Your task to perform on an android device: Search for "asus zenbook" on newegg, select the first entry, add it to the cart, then select checkout. Image 0: 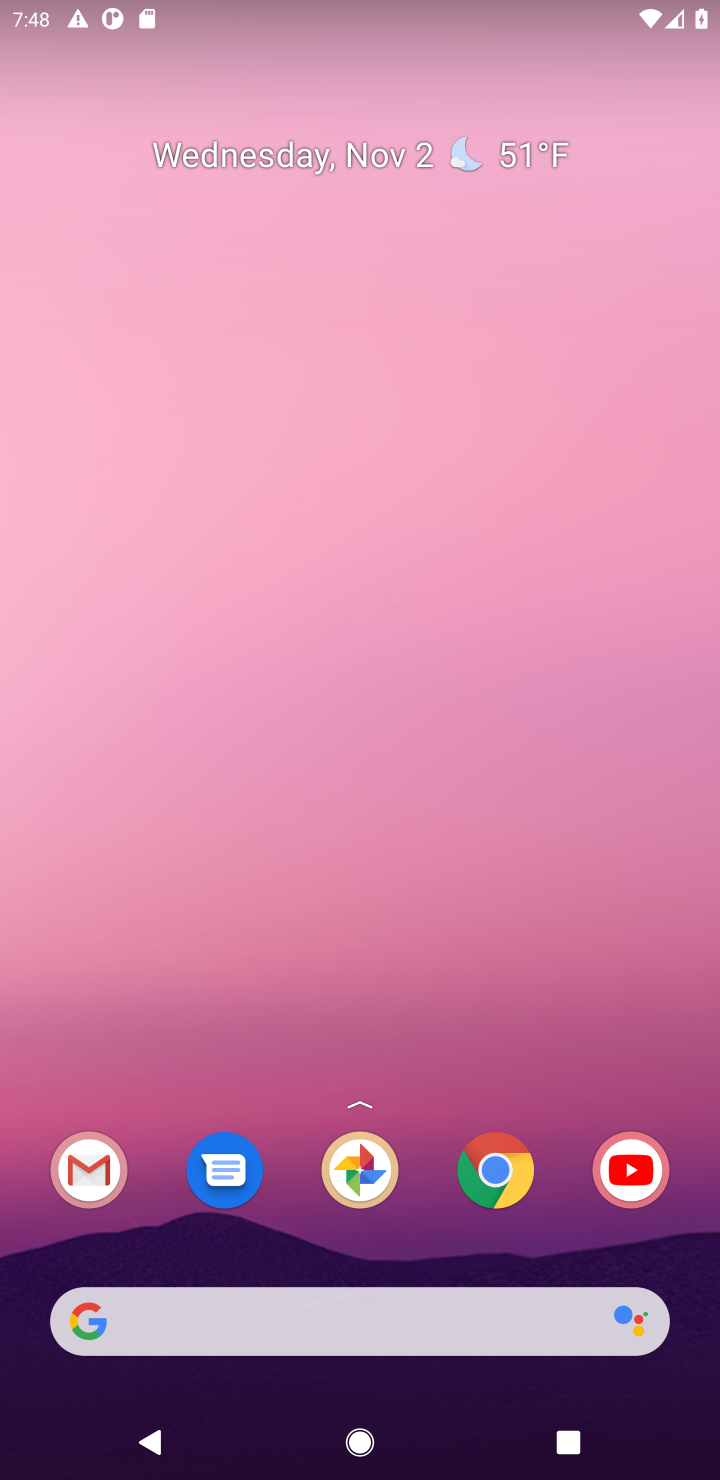
Step 0: click (517, 1166)
Your task to perform on an android device: Search for "asus zenbook" on newegg, select the first entry, add it to the cart, then select checkout. Image 1: 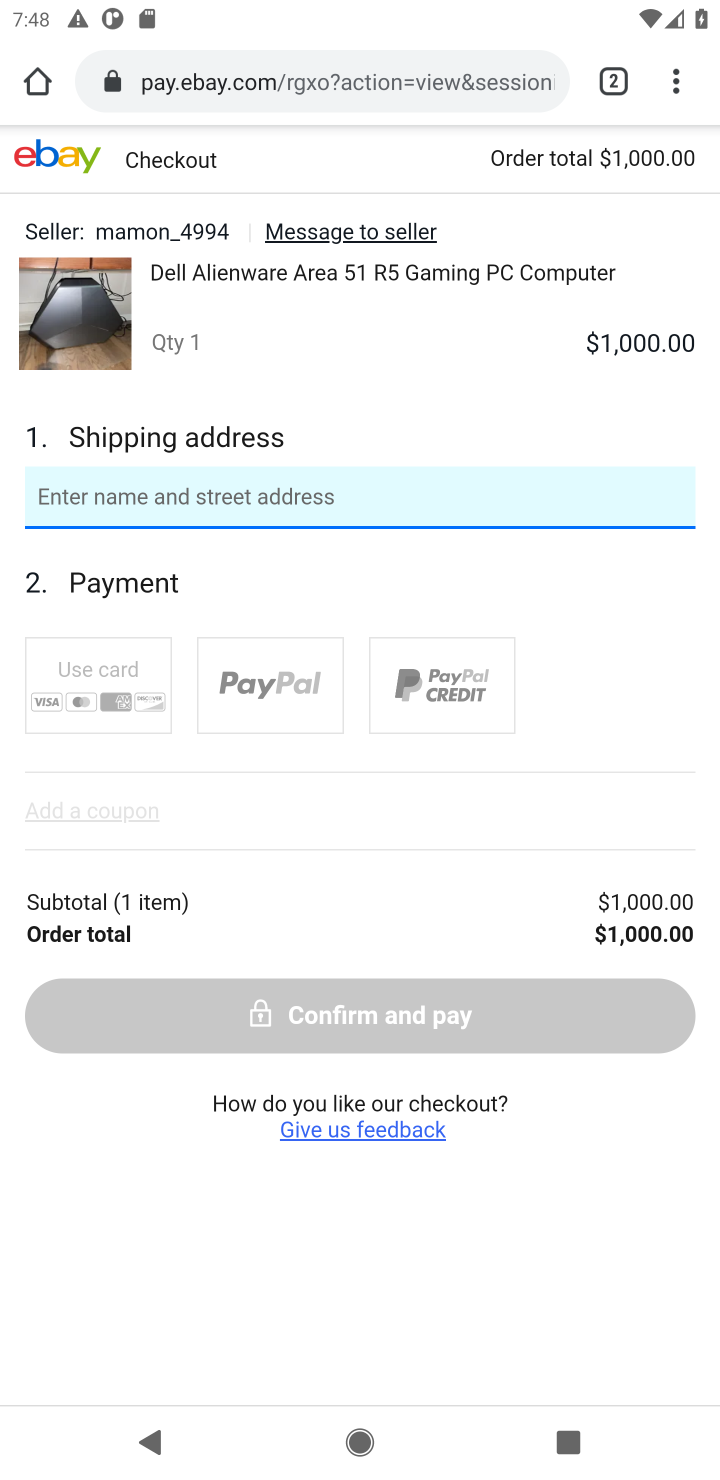
Step 1: click (432, 77)
Your task to perform on an android device: Search for "asus zenbook" on newegg, select the first entry, add it to the cart, then select checkout. Image 2: 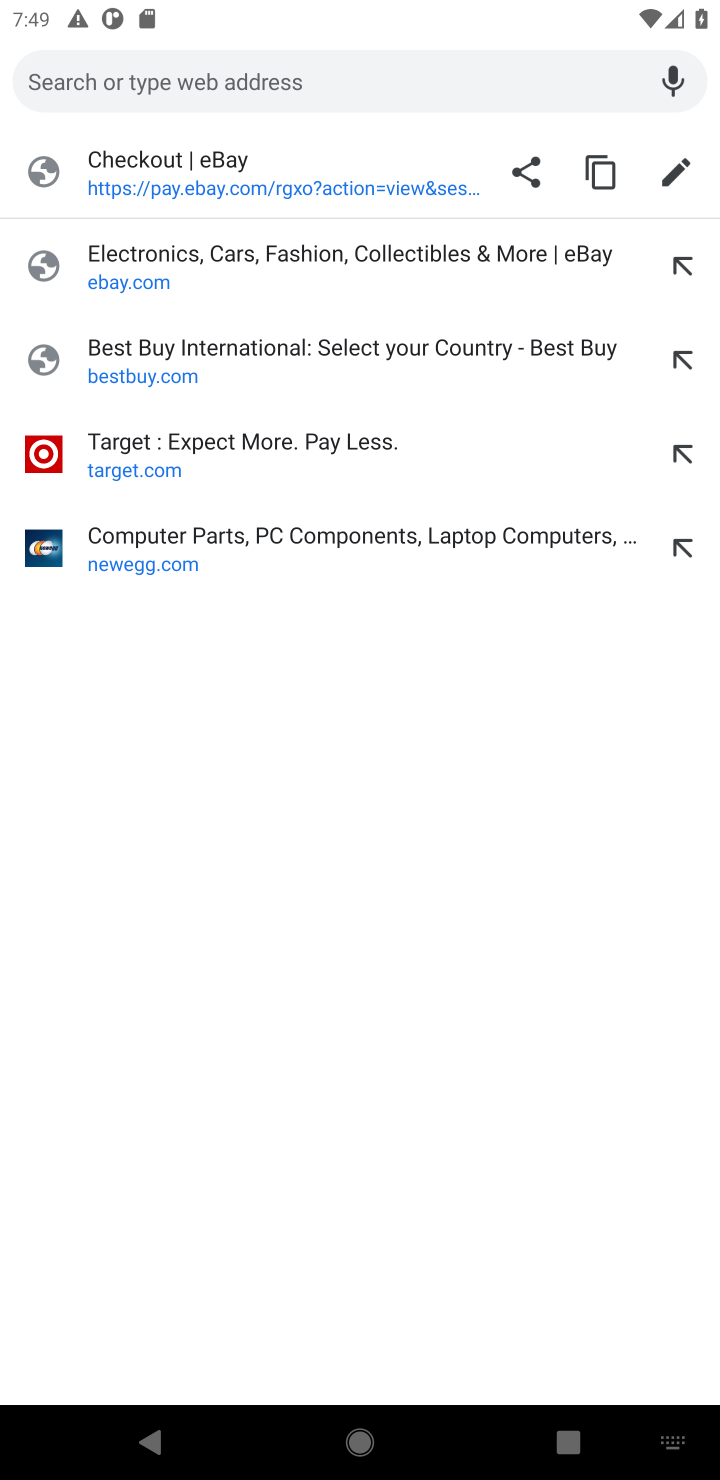
Step 2: type "newegg"
Your task to perform on an android device: Search for "asus zenbook" on newegg, select the first entry, add it to the cart, then select checkout. Image 3: 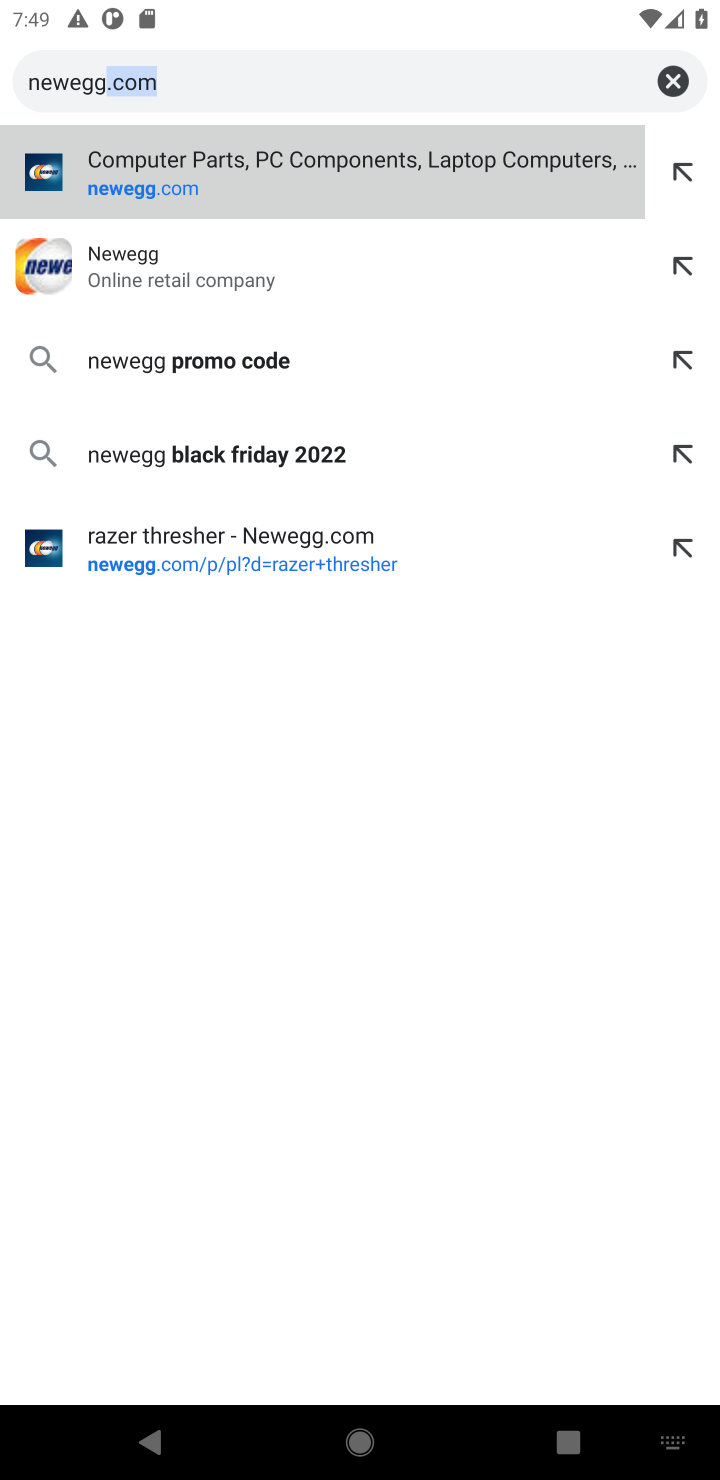
Step 3: press enter
Your task to perform on an android device: Search for "asus zenbook" on newegg, select the first entry, add it to the cart, then select checkout. Image 4: 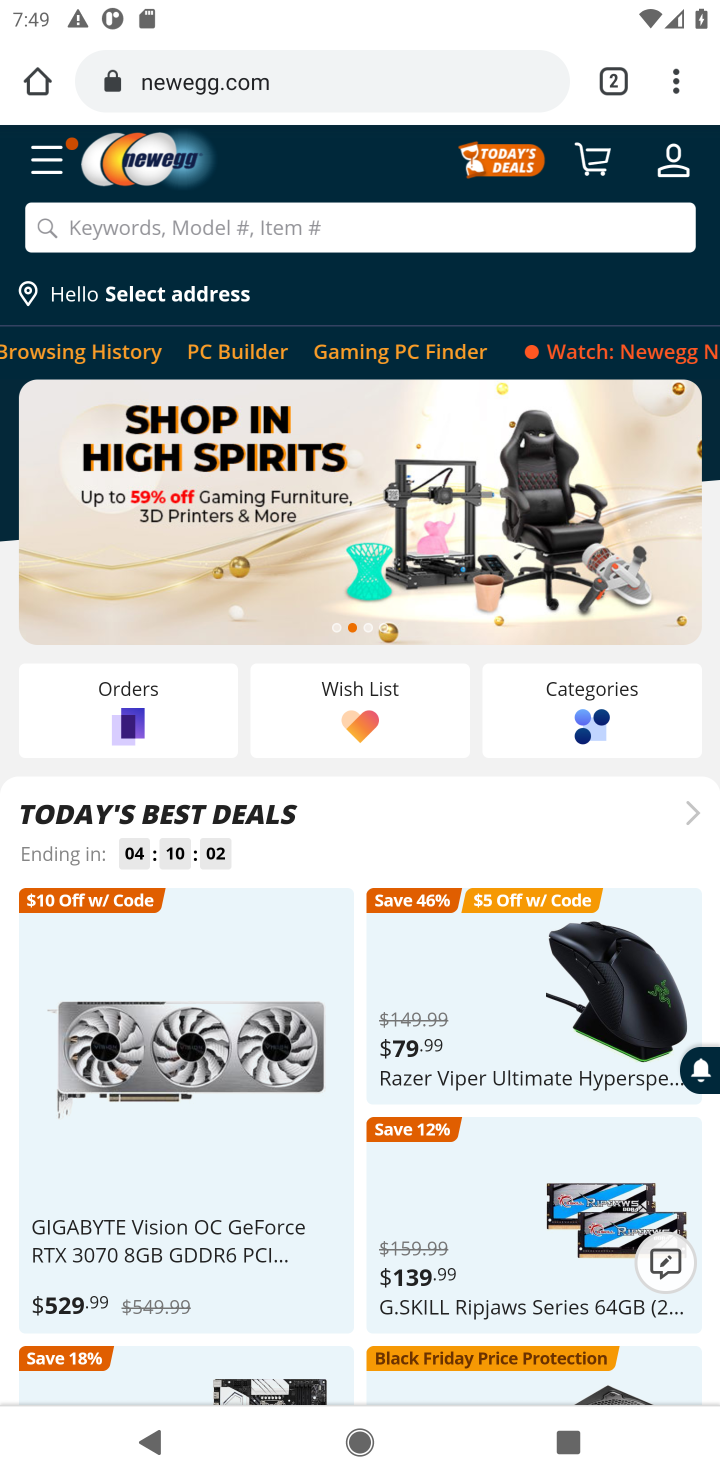
Step 4: click (262, 231)
Your task to perform on an android device: Search for "asus zenbook" on newegg, select the first entry, add it to the cart, then select checkout. Image 5: 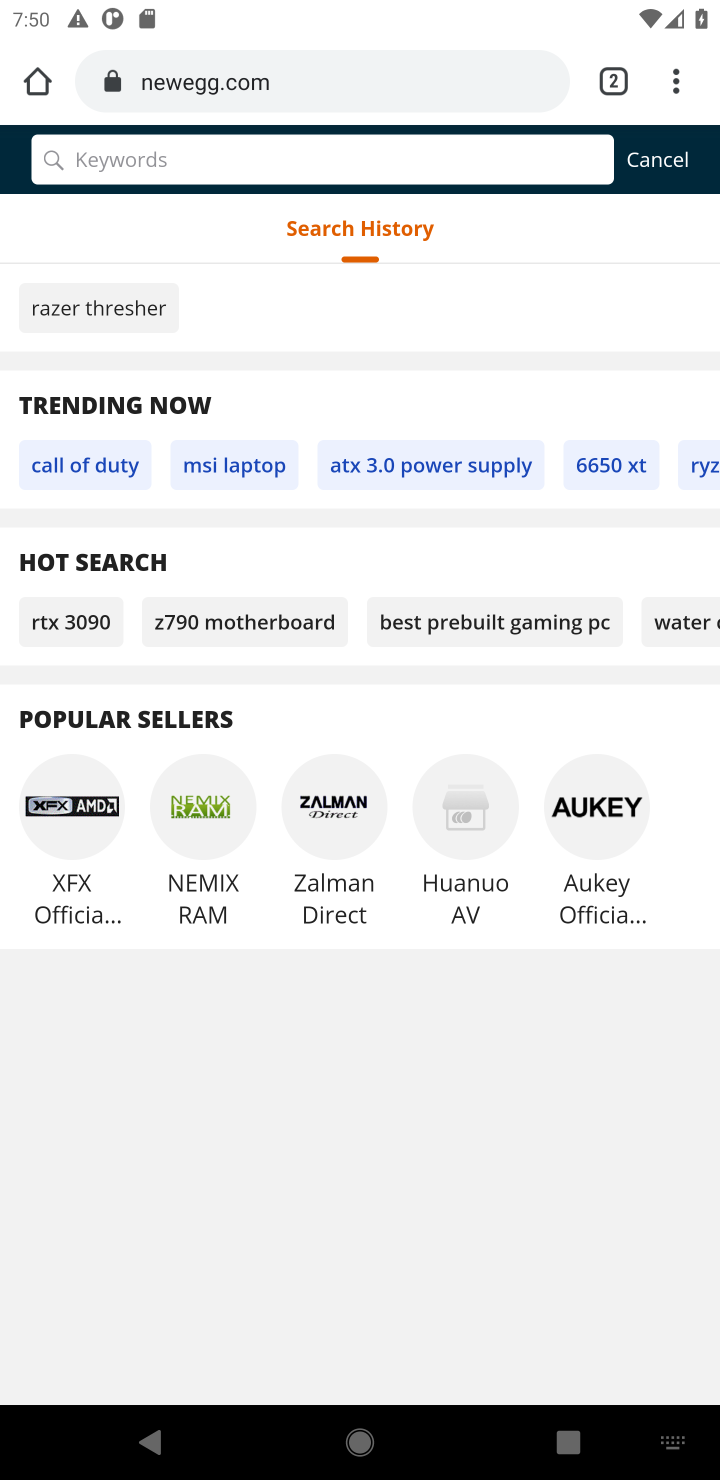
Step 5: type "asus zenbook"
Your task to perform on an android device: Search for "asus zenbook" on newegg, select the first entry, add it to the cart, then select checkout. Image 6: 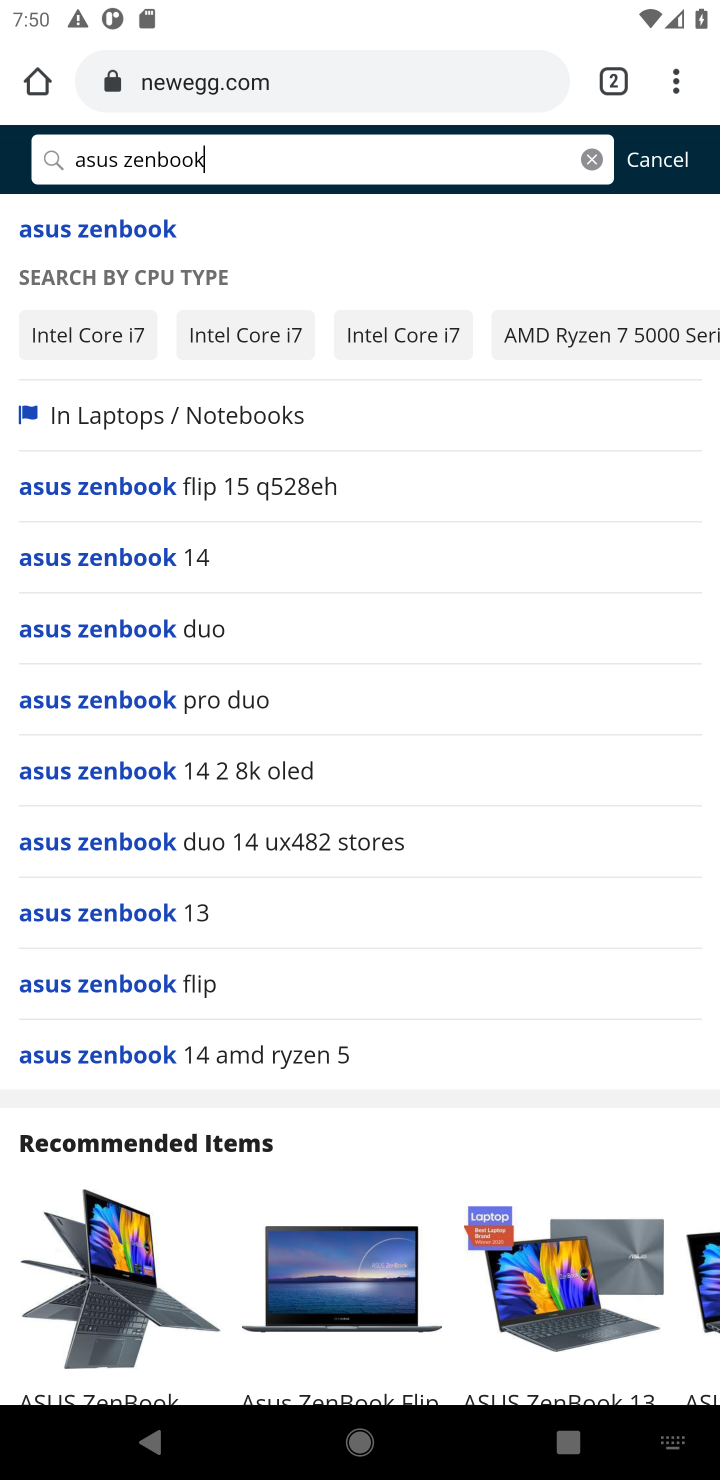
Step 6: press enter
Your task to perform on an android device: Search for "asus zenbook" on newegg, select the first entry, add it to the cart, then select checkout. Image 7: 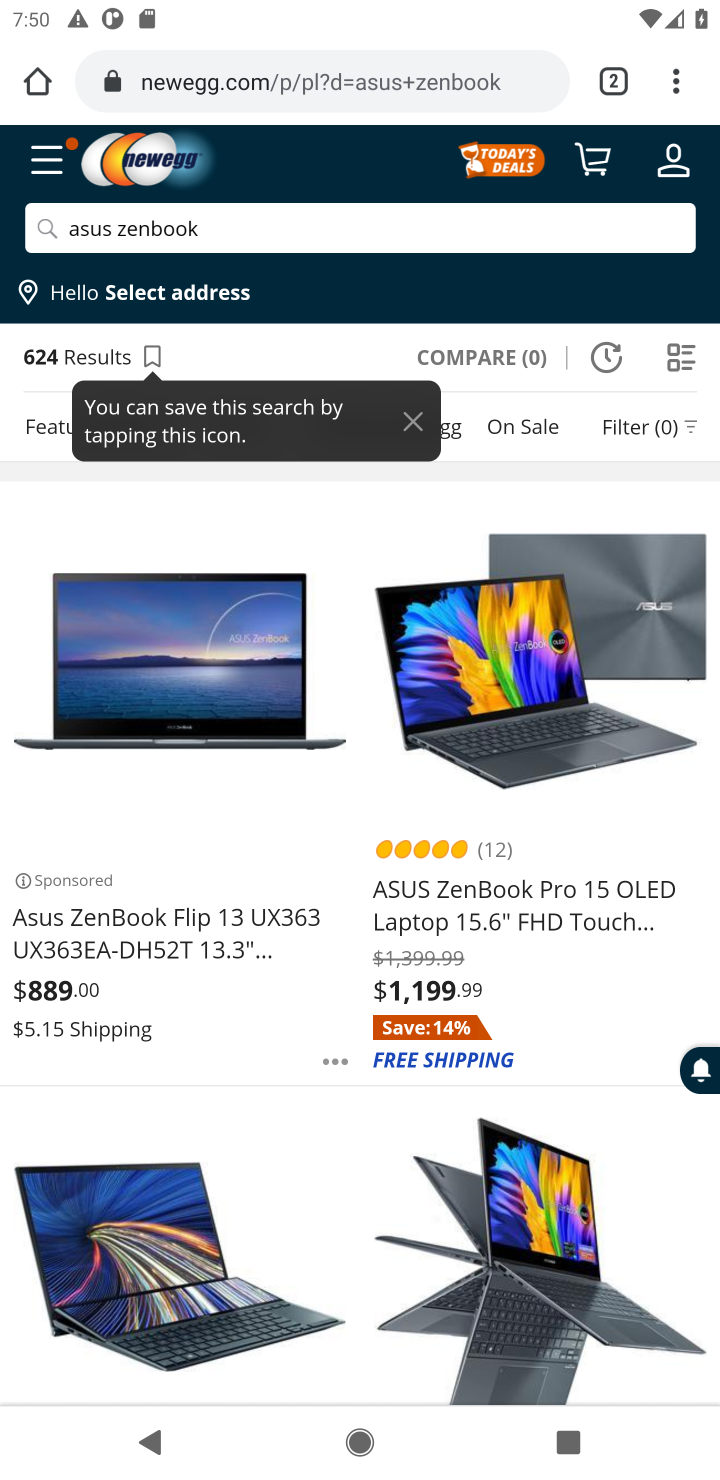
Step 7: click (194, 955)
Your task to perform on an android device: Search for "asus zenbook" on newegg, select the first entry, add it to the cart, then select checkout. Image 8: 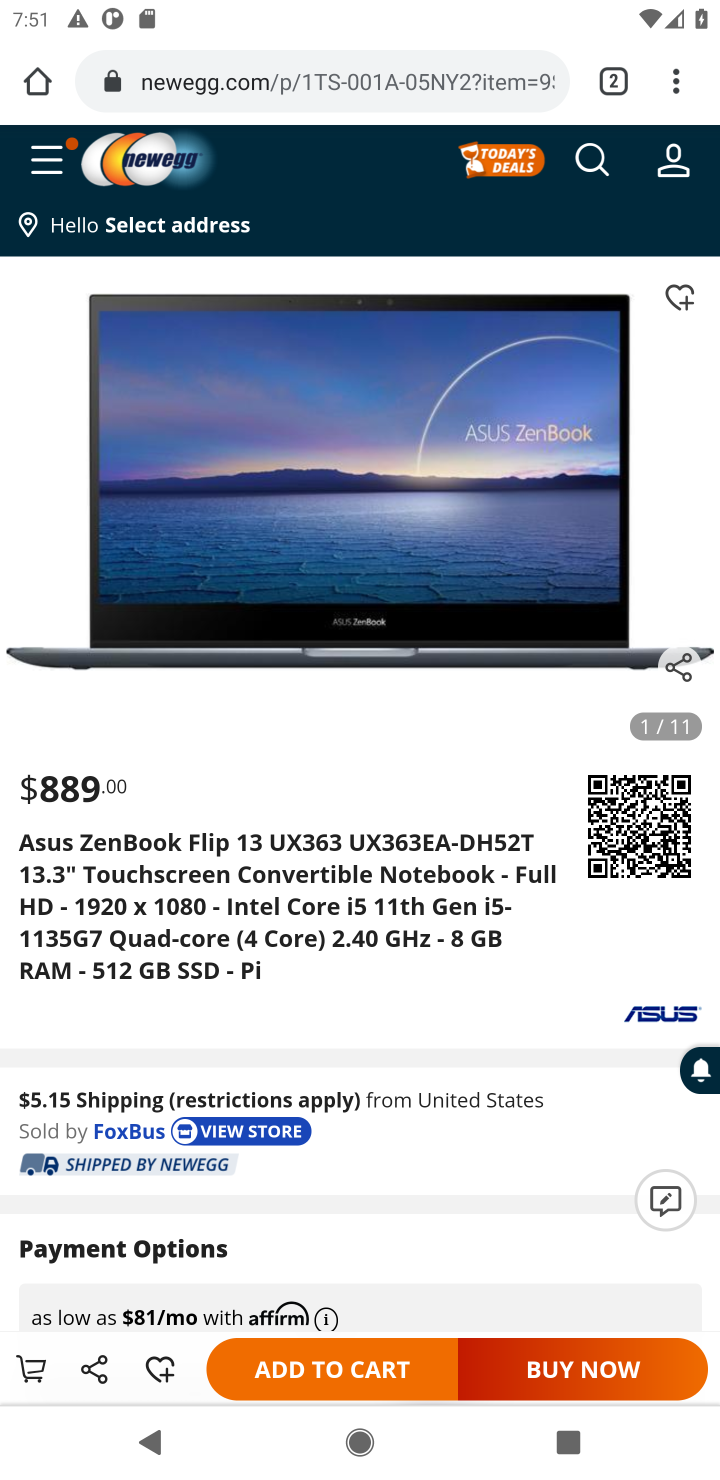
Step 8: click (404, 1379)
Your task to perform on an android device: Search for "asus zenbook" on newegg, select the first entry, add it to the cart, then select checkout. Image 9: 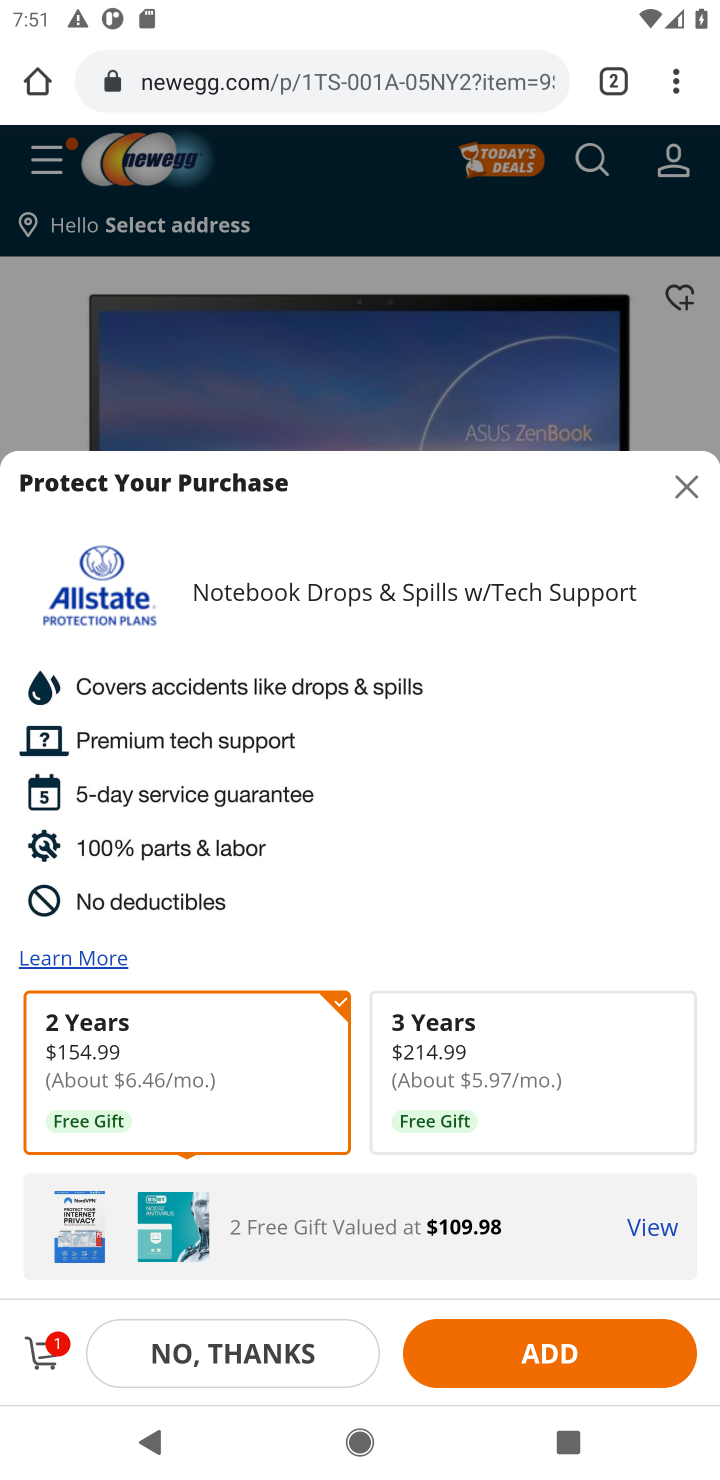
Step 9: click (194, 1350)
Your task to perform on an android device: Search for "asus zenbook" on newegg, select the first entry, add it to the cart, then select checkout. Image 10: 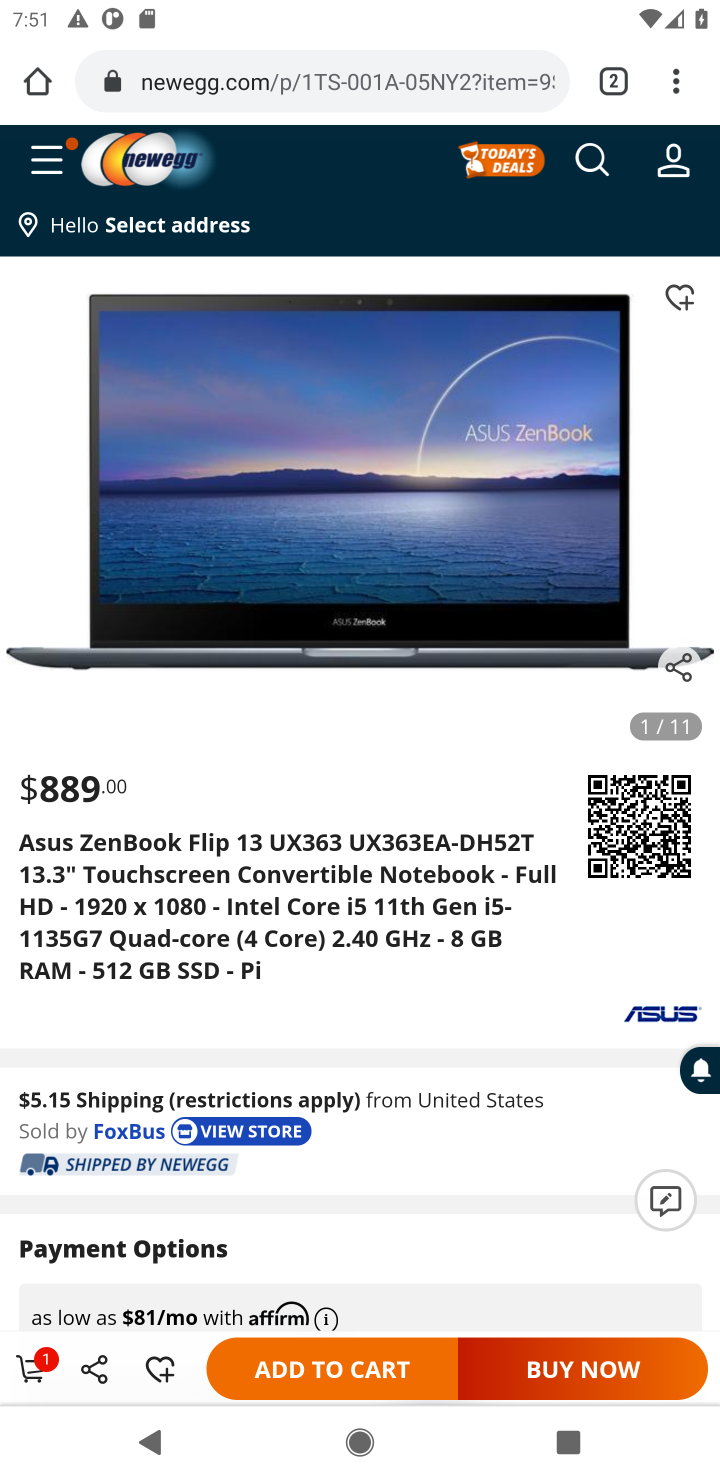
Step 10: click (41, 1354)
Your task to perform on an android device: Search for "asus zenbook" on newegg, select the first entry, add it to the cart, then select checkout. Image 11: 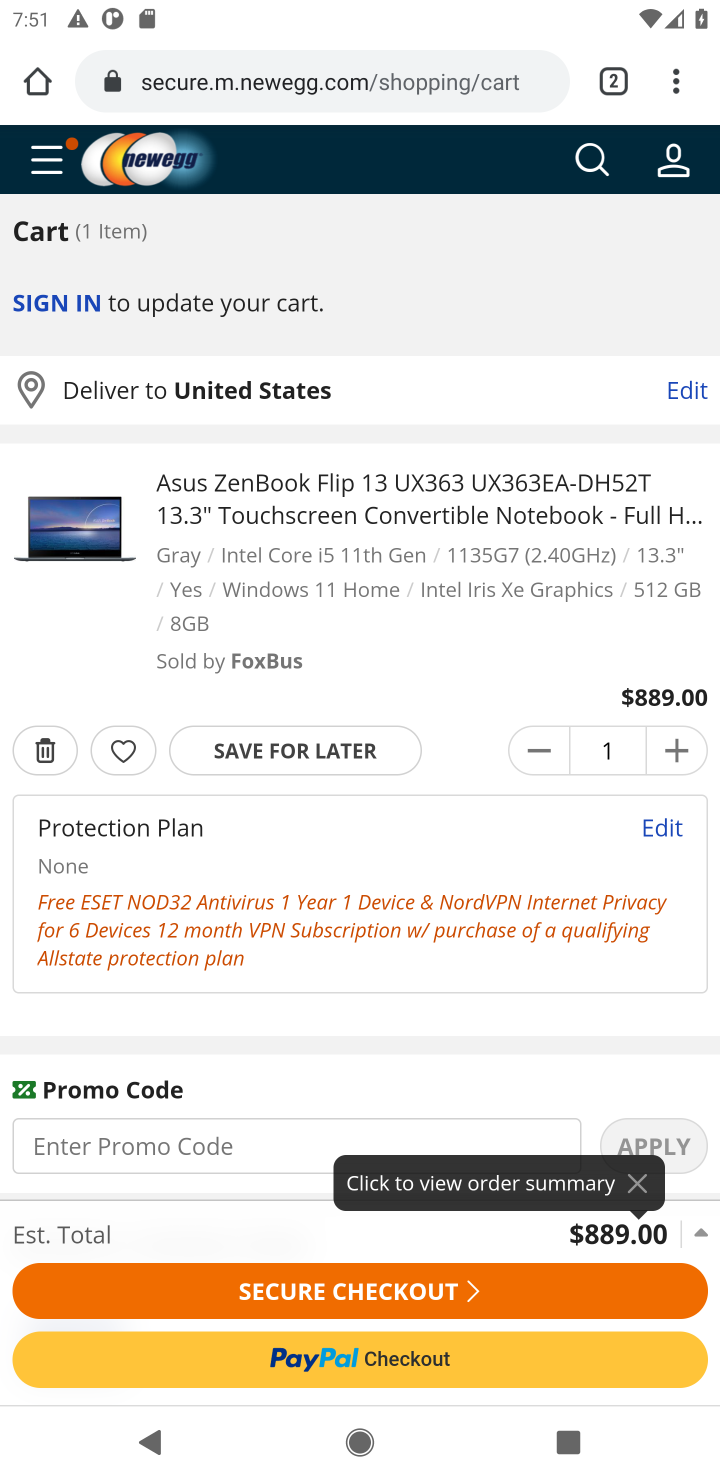
Step 11: click (253, 1276)
Your task to perform on an android device: Search for "asus zenbook" on newegg, select the first entry, add it to the cart, then select checkout. Image 12: 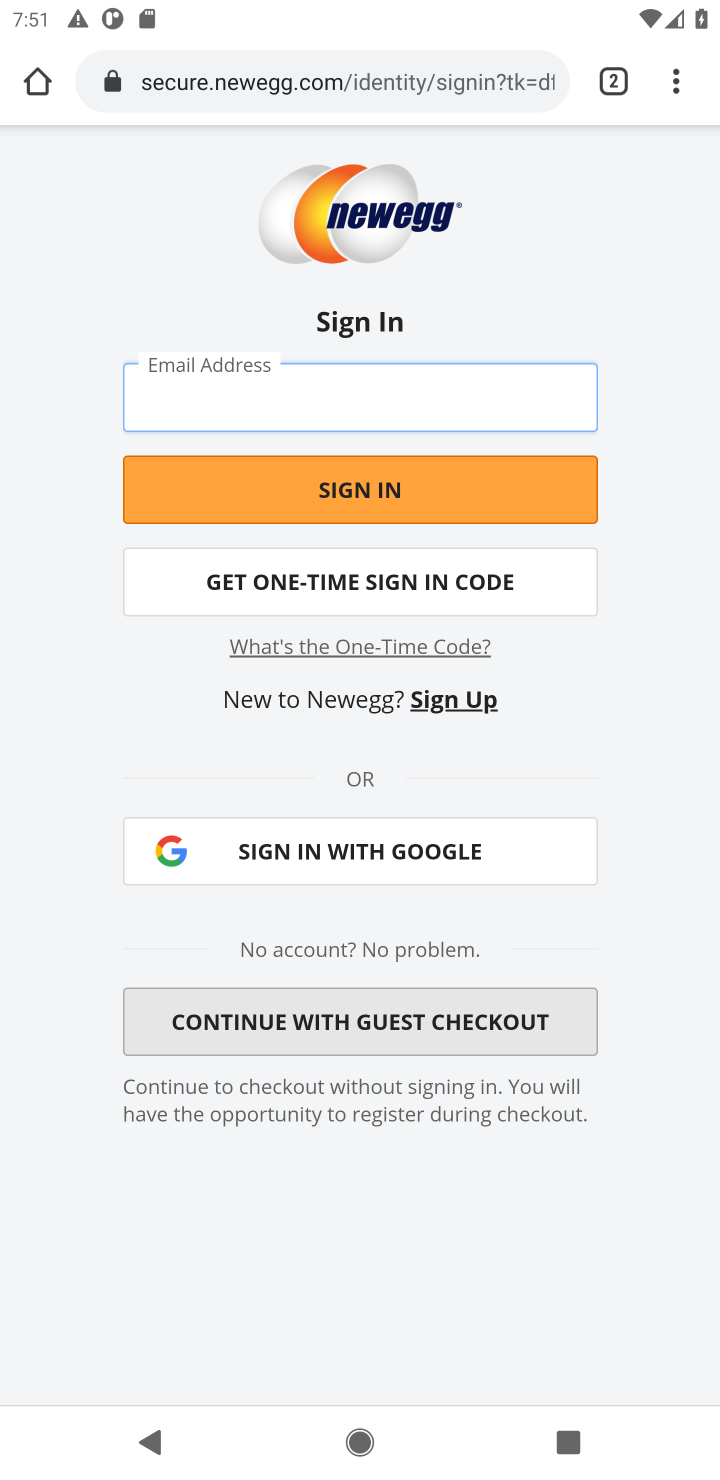
Step 12: task complete